Your task to perform on an android device: turn off javascript in the chrome app Image 0: 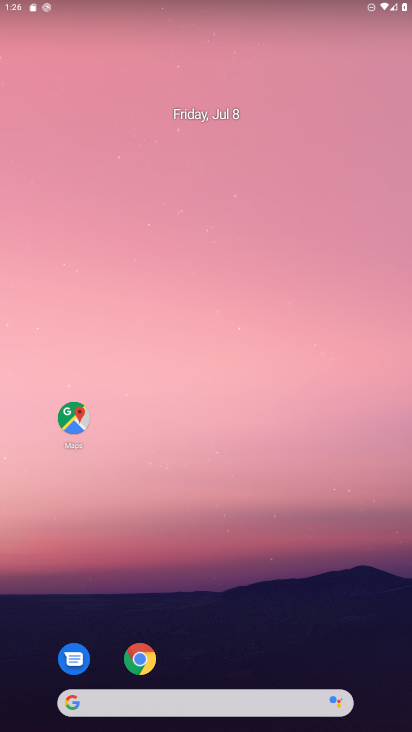
Step 0: click (142, 659)
Your task to perform on an android device: turn off javascript in the chrome app Image 1: 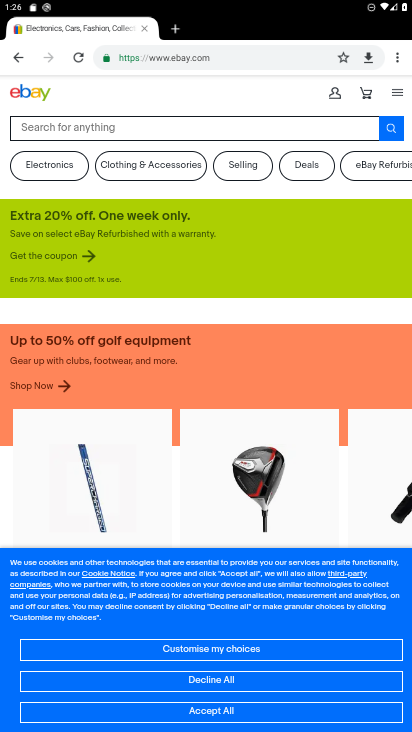
Step 1: click (398, 57)
Your task to perform on an android device: turn off javascript in the chrome app Image 2: 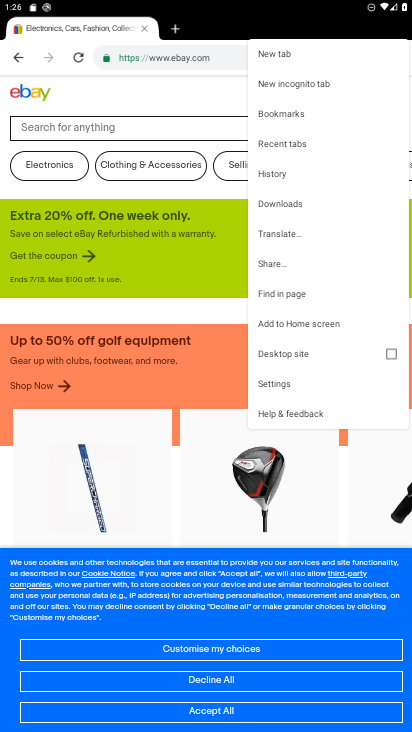
Step 2: click (275, 381)
Your task to perform on an android device: turn off javascript in the chrome app Image 3: 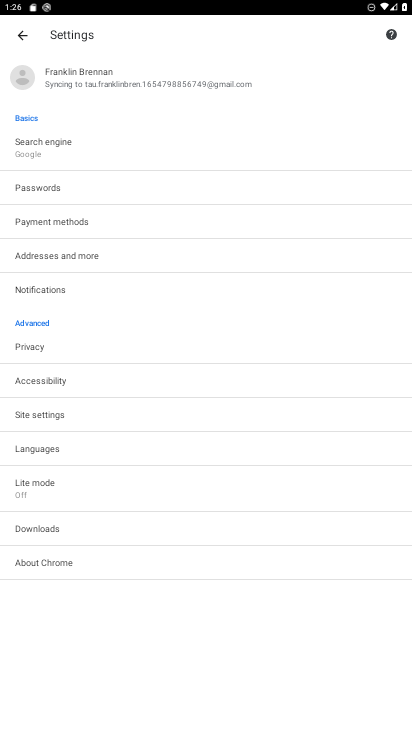
Step 3: click (43, 414)
Your task to perform on an android device: turn off javascript in the chrome app Image 4: 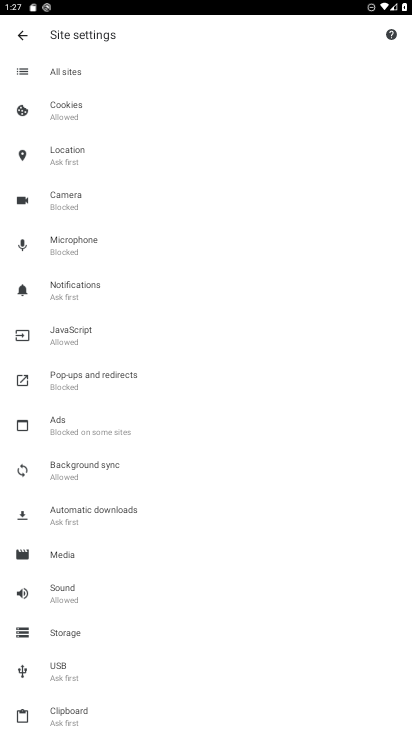
Step 4: click (63, 331)
Your task to perform on an android device: turn off javascript in the chrome app Image 5: 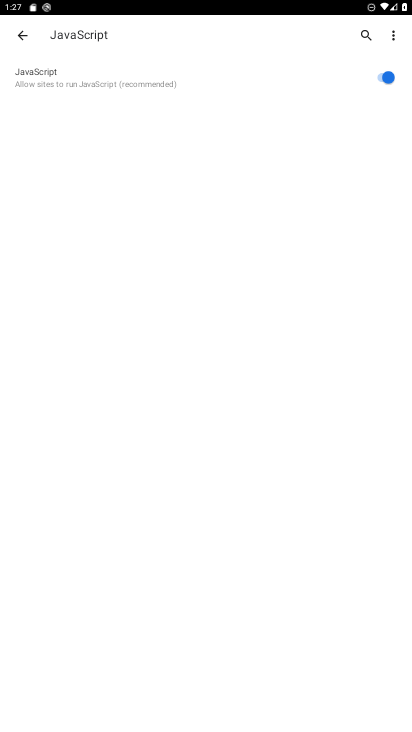
Step 5: click (377, 74)
Your task to perform on an android device: turn off javascript in the chrome app Image 6: 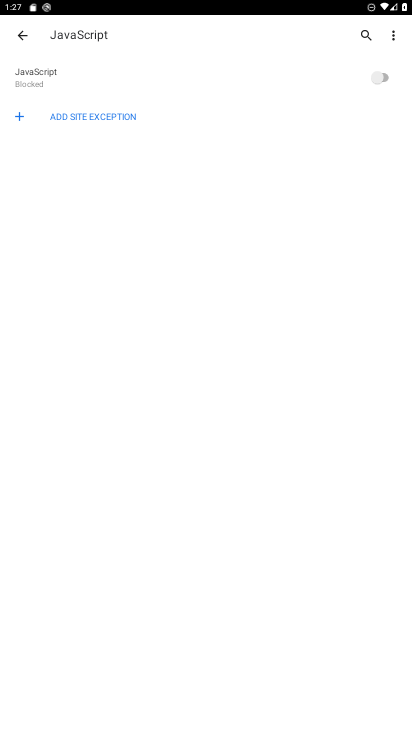
Step 6: task complete